Your task to perform on an android device: open app "Grab" (install if not already installed) Image 0: 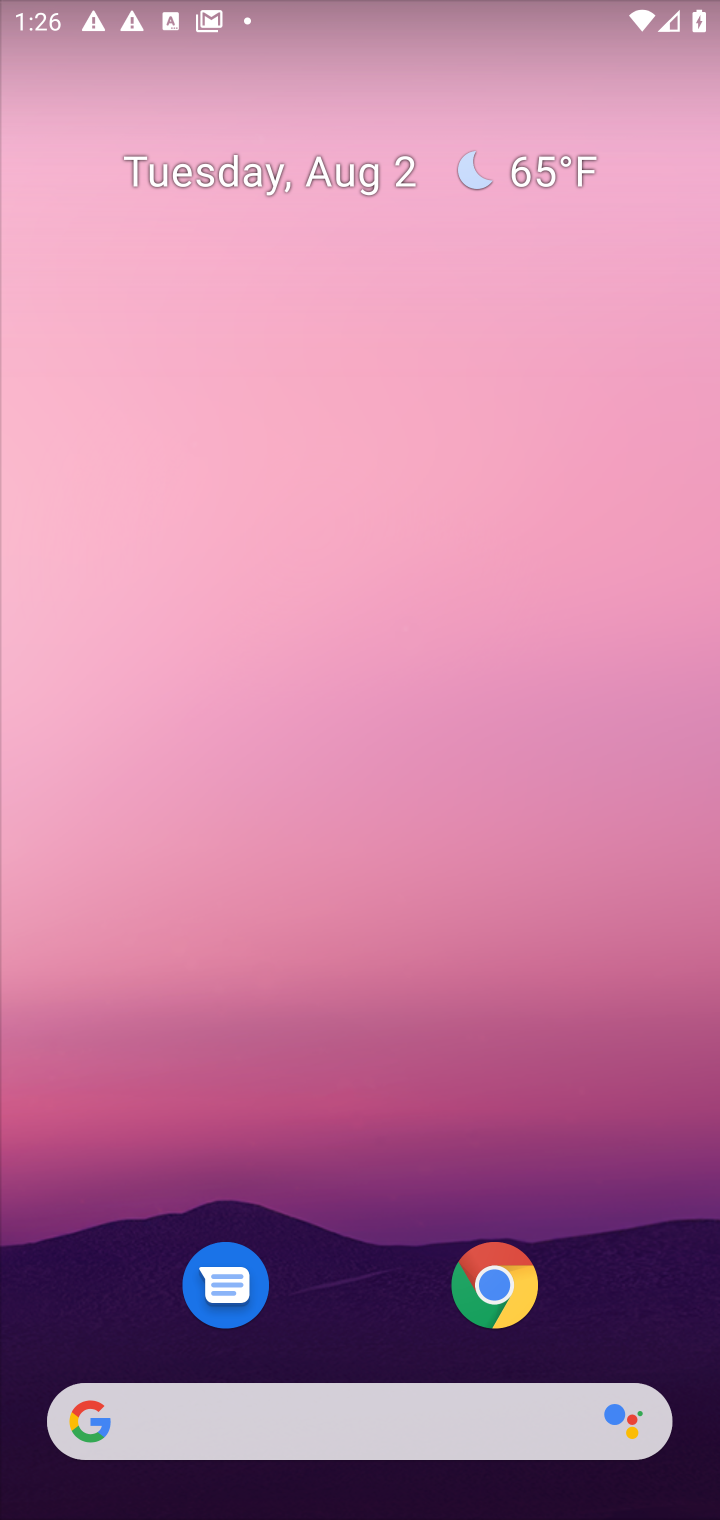
Step 0: drag from (395, 402) to (442, 41)
Your task to perform on an android device: open app "Grab" (install if not already installed) Image 1: 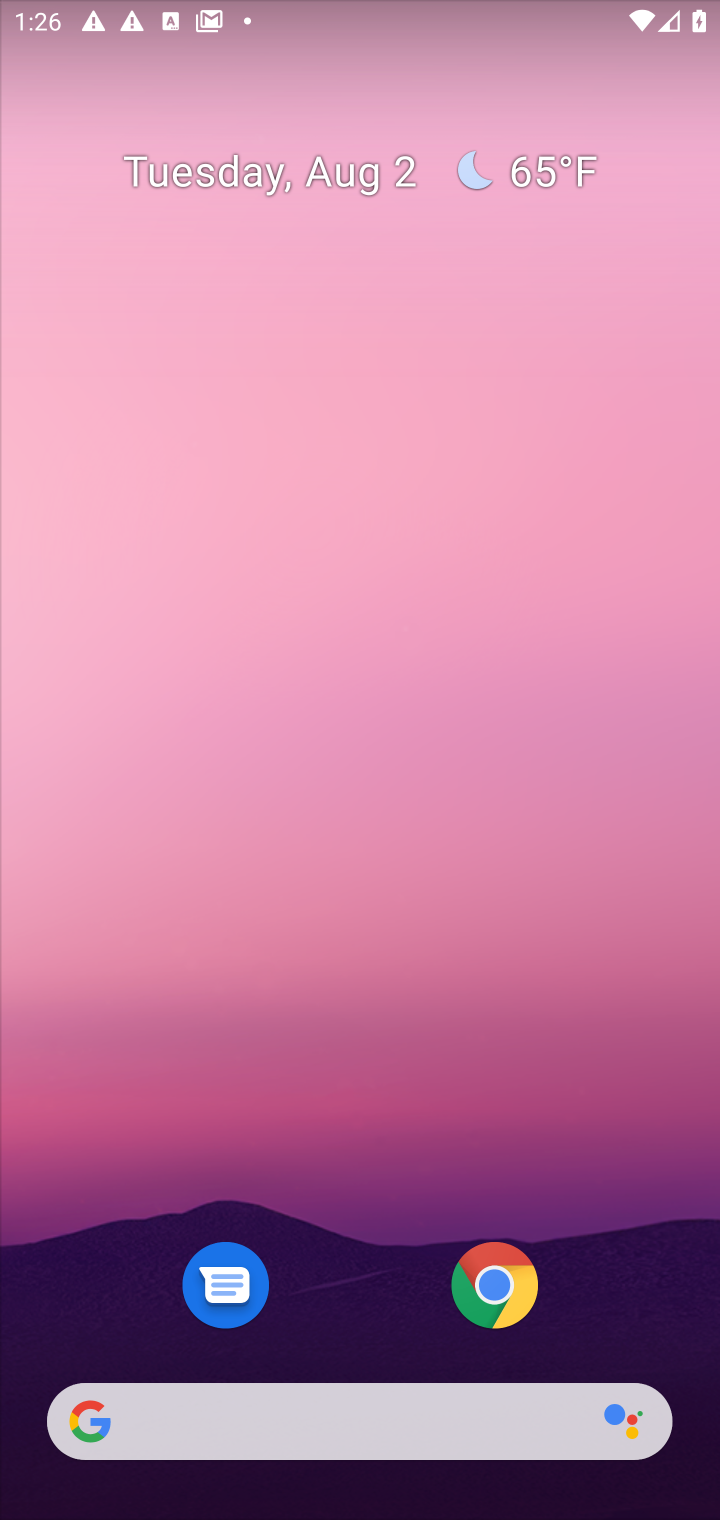
Step 1: drag from (381, 871) to (429, 169)
Your task to perform on an android device: open app "Grab" (install if not already installed) Image 2: 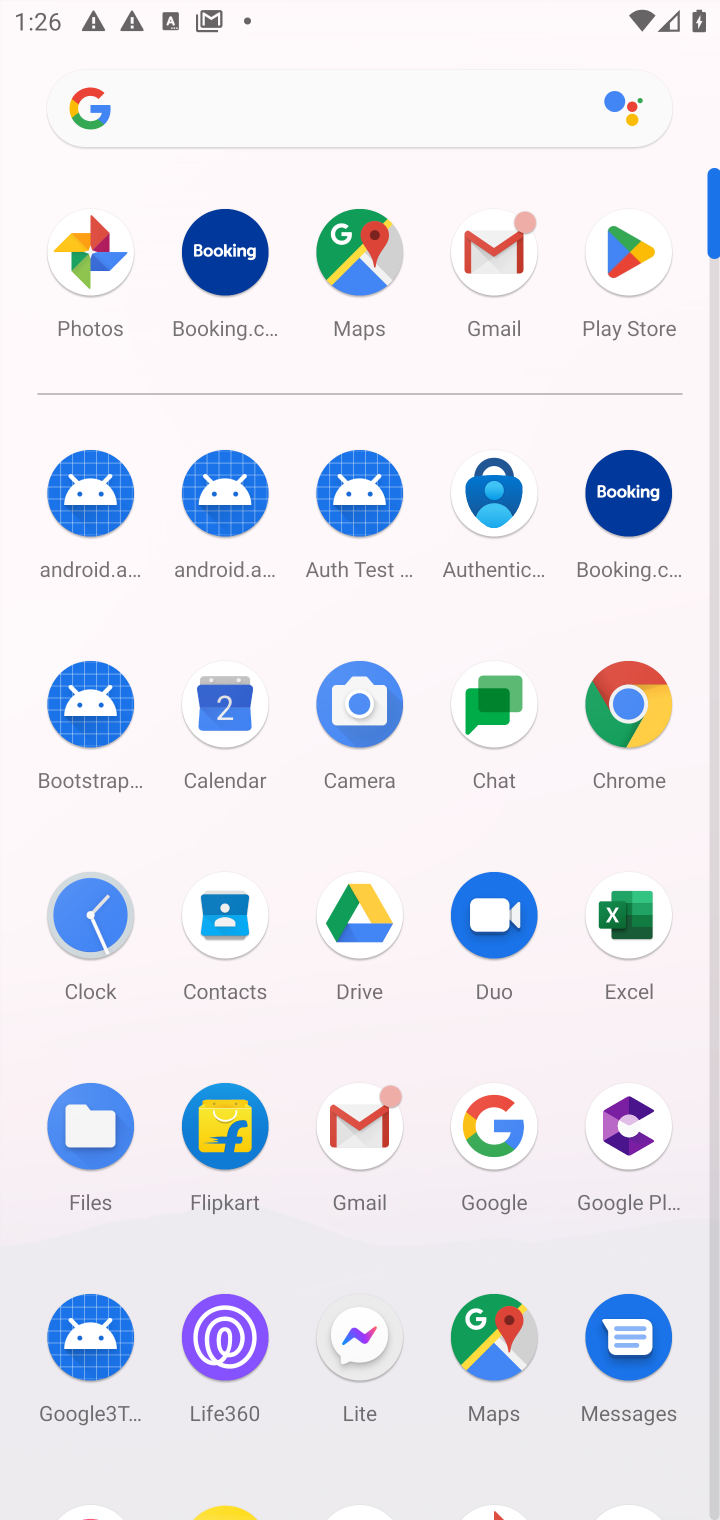
Step 2: click (635, 230)
Your task to perform on an android device: open app "Grab" (install if not already installed) Image 3: 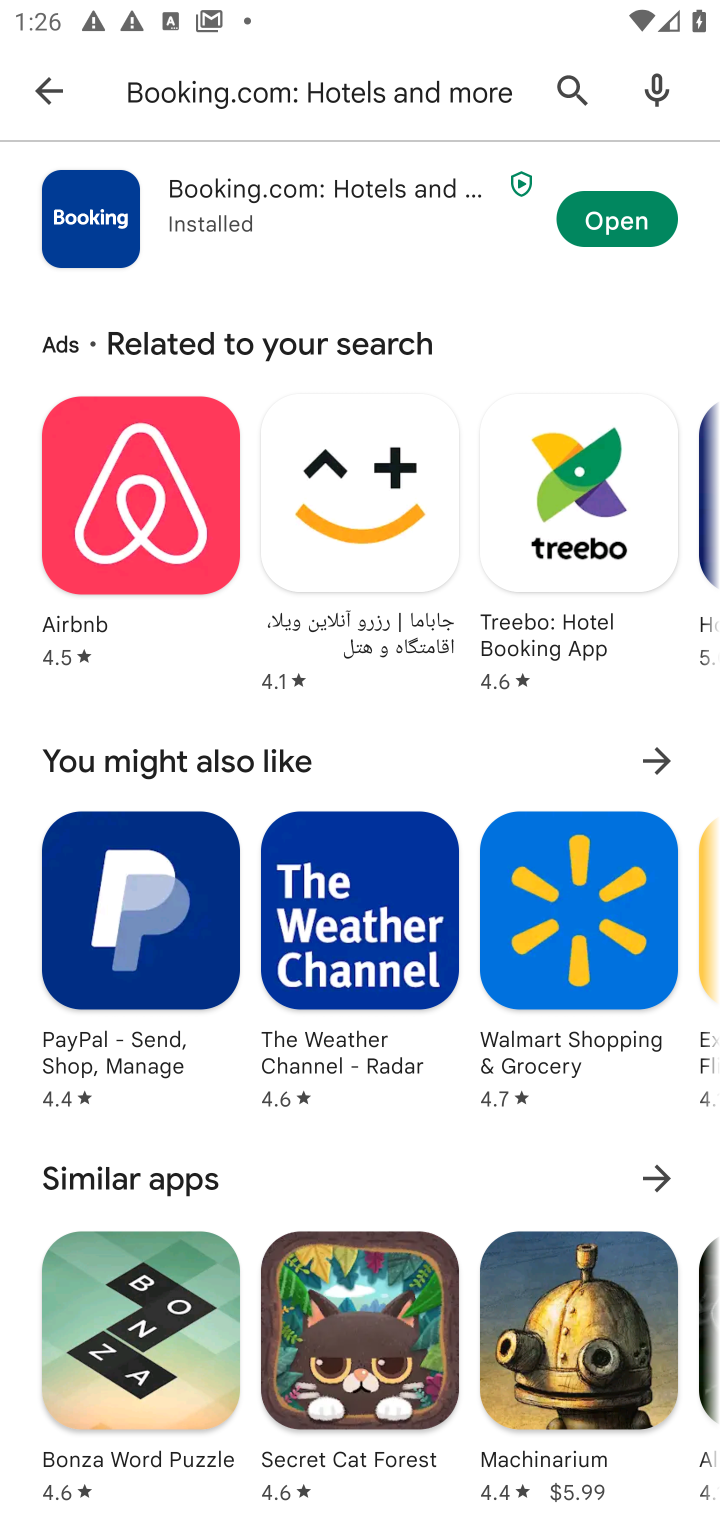
Step 3: click (375, 111)
Your task to perform on an android device: open app "Grab" (install if not already installed) Image 4: 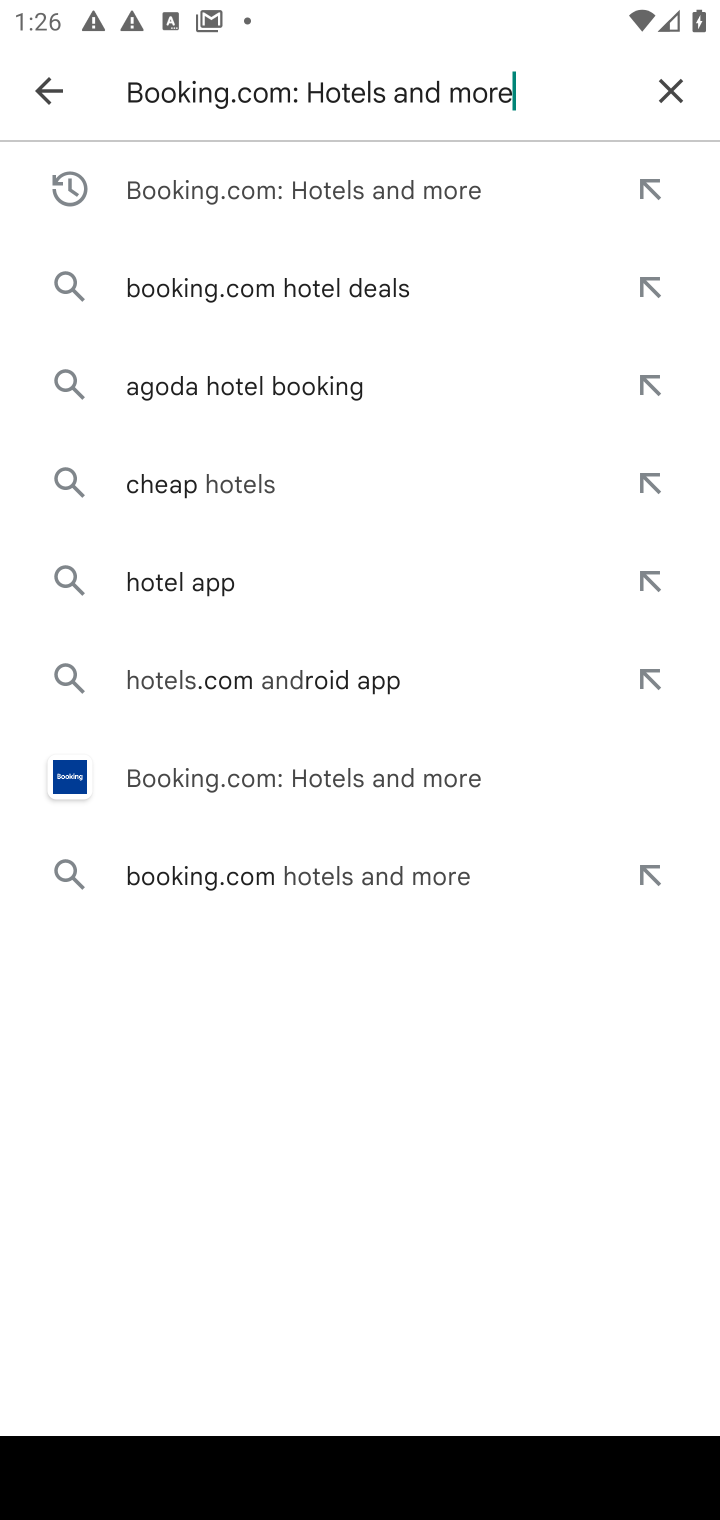
Step 4: click (666, 85)
Your task to perform on an android device: open app "Grab" (install if not already installed) Image 5: 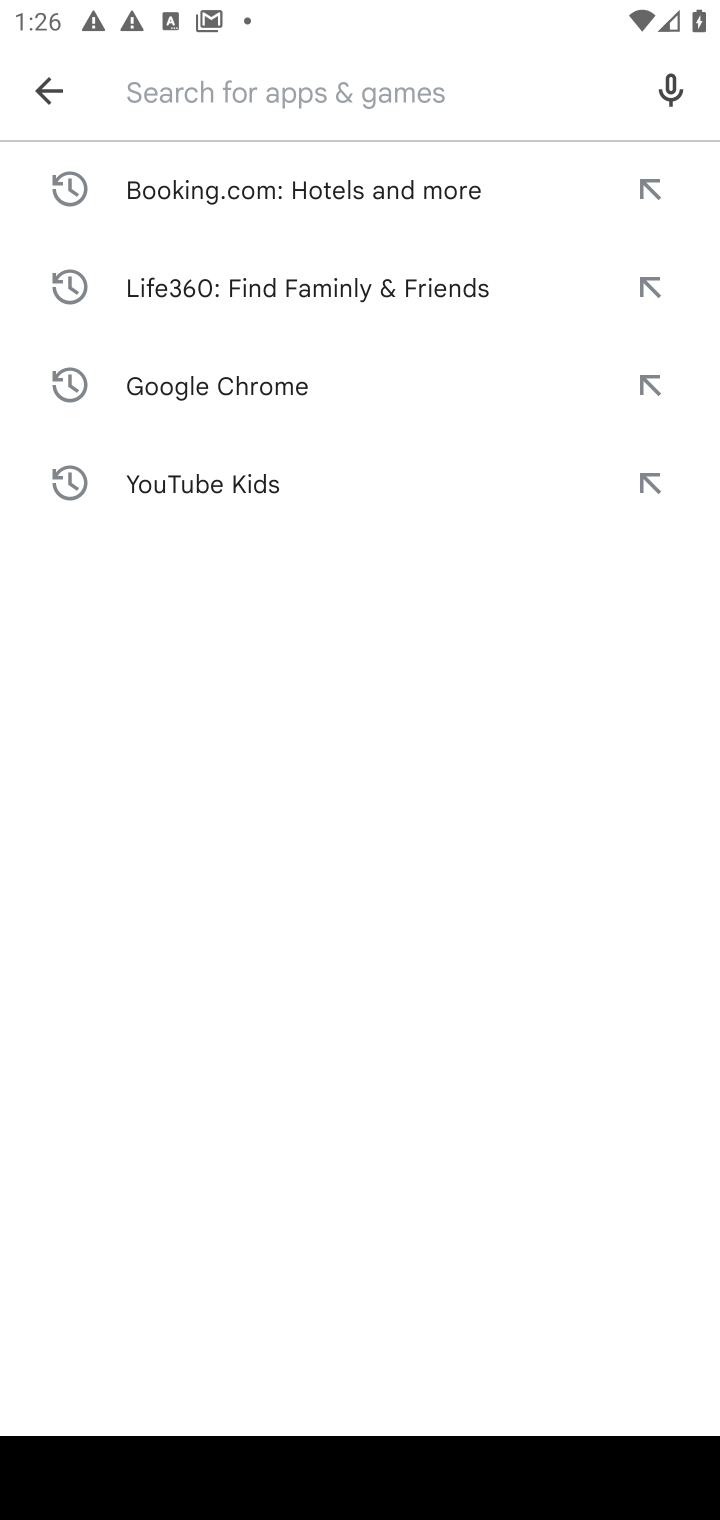
Step 5: type "Grab"
Your task to perform on an android device: open app "Grab" (install if not already installed) Image 6: 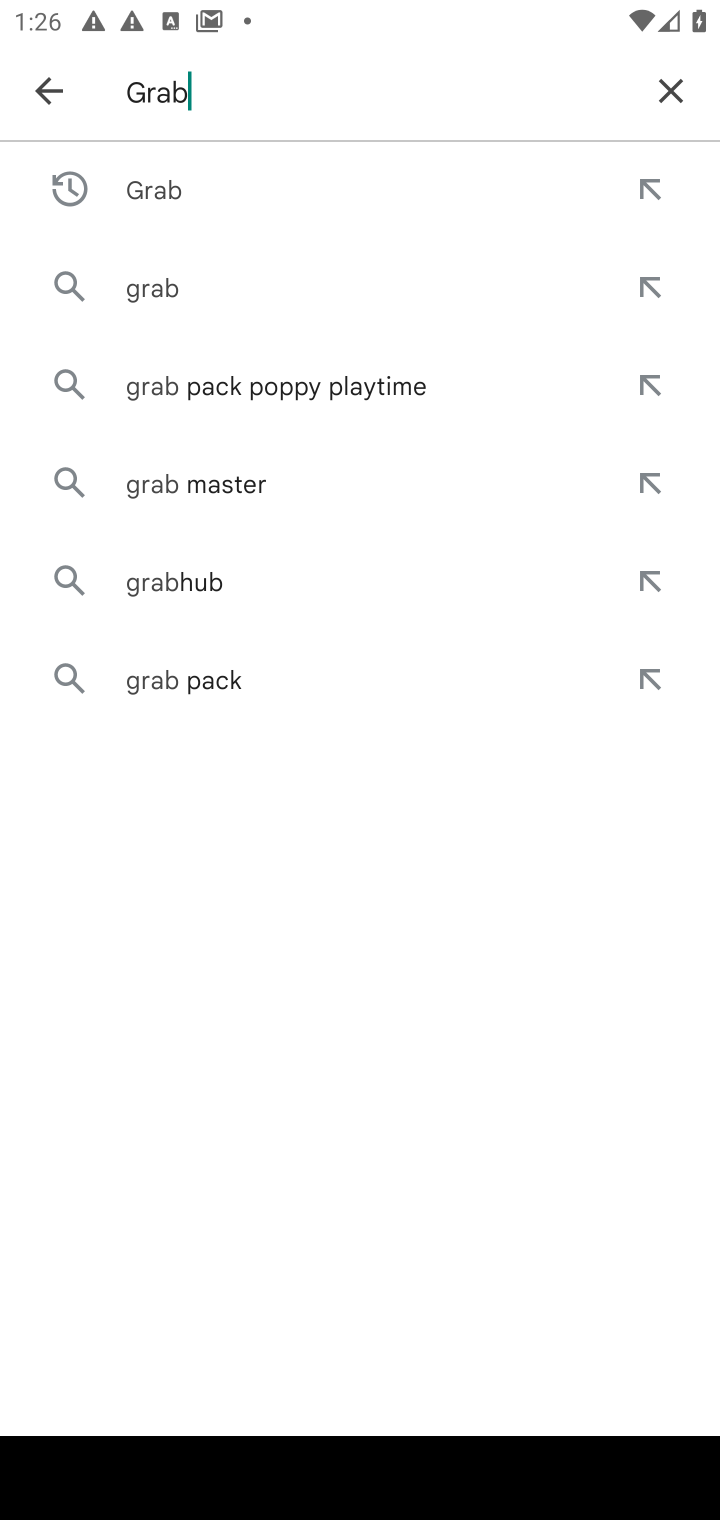
Step 6: press enter
Your task to perform on an android device: open app "Grab" (install if not already installed) Image 7: 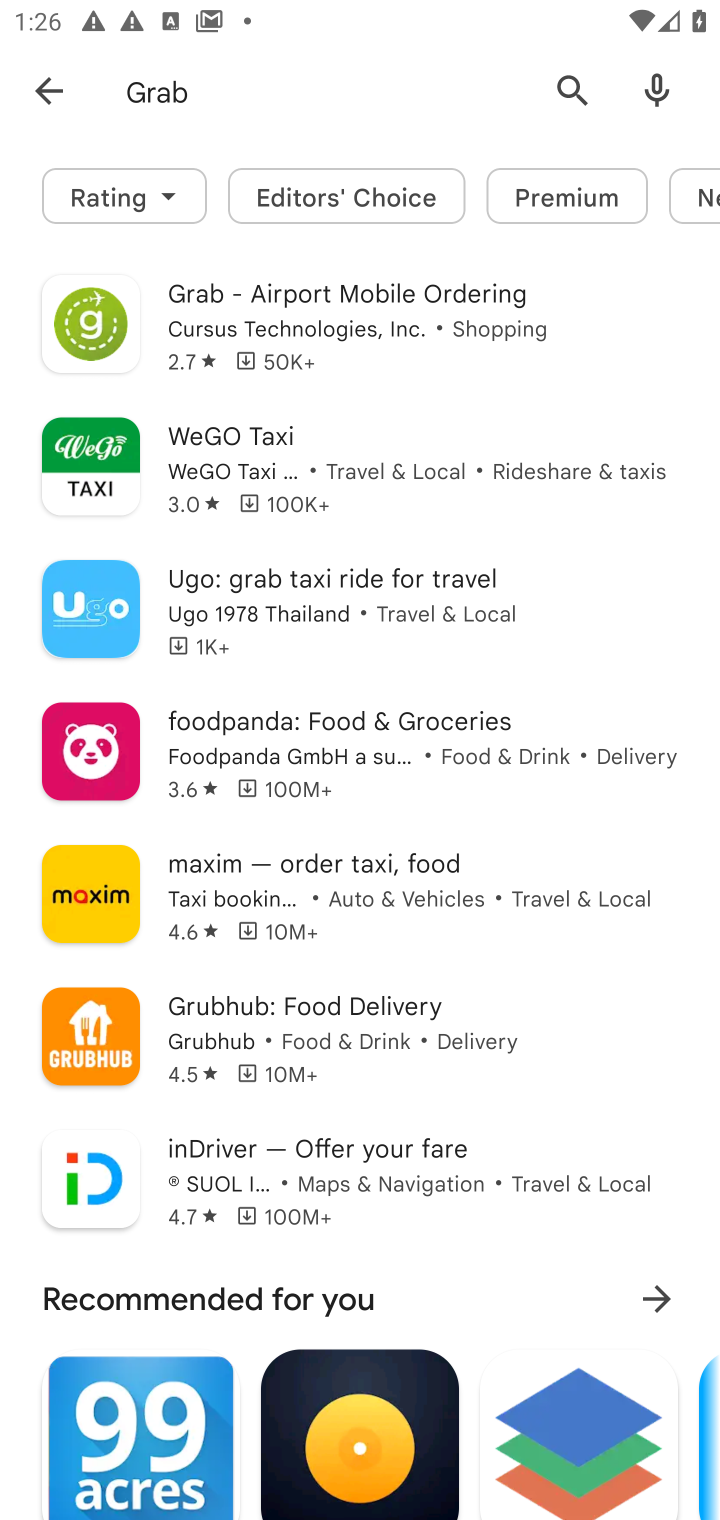
Step 7: click (288, 299)
Your task to perform on an android device: open app "Grab" (install if not already installed) Image 8: 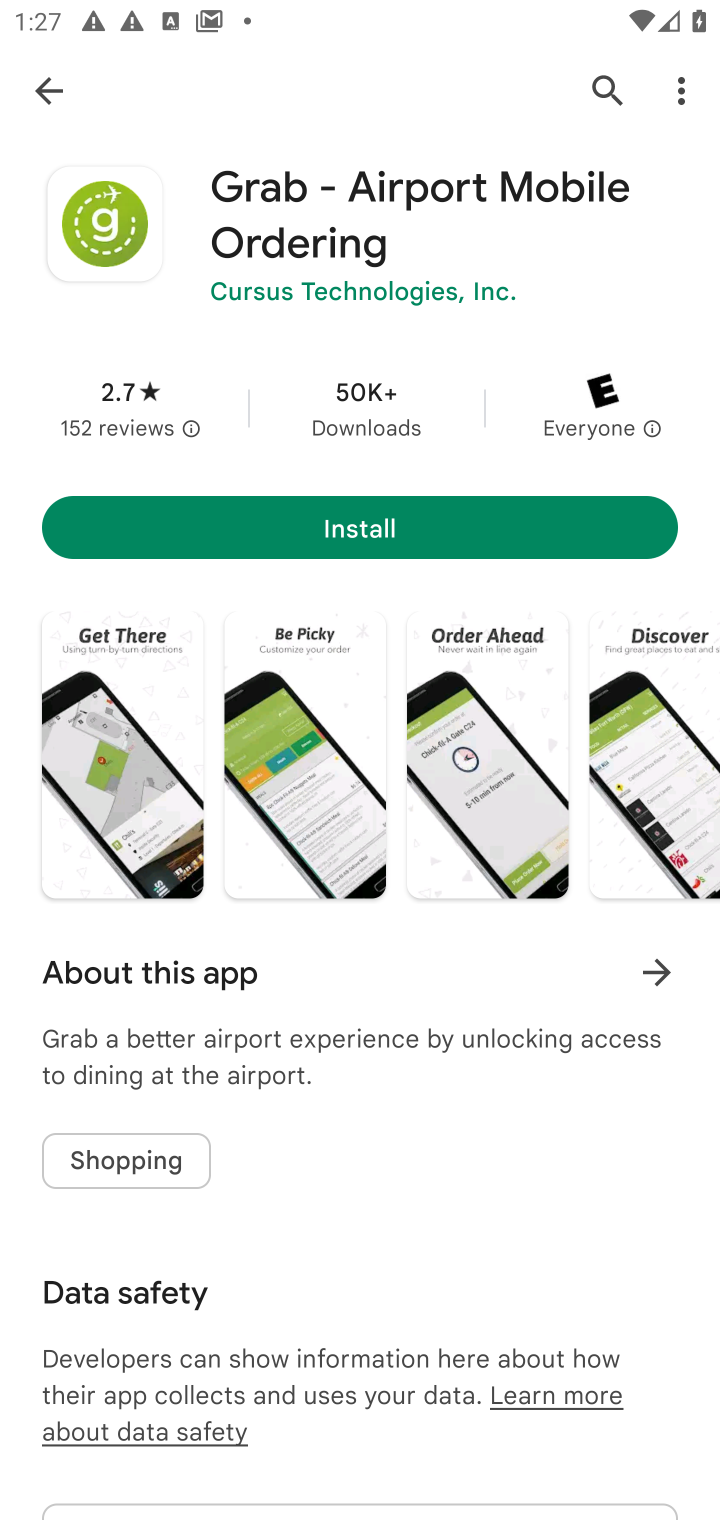
Step 8: click (276, 513)
Your task to perform on an android device: open app "Grab" (install if not already installed) Image 9: 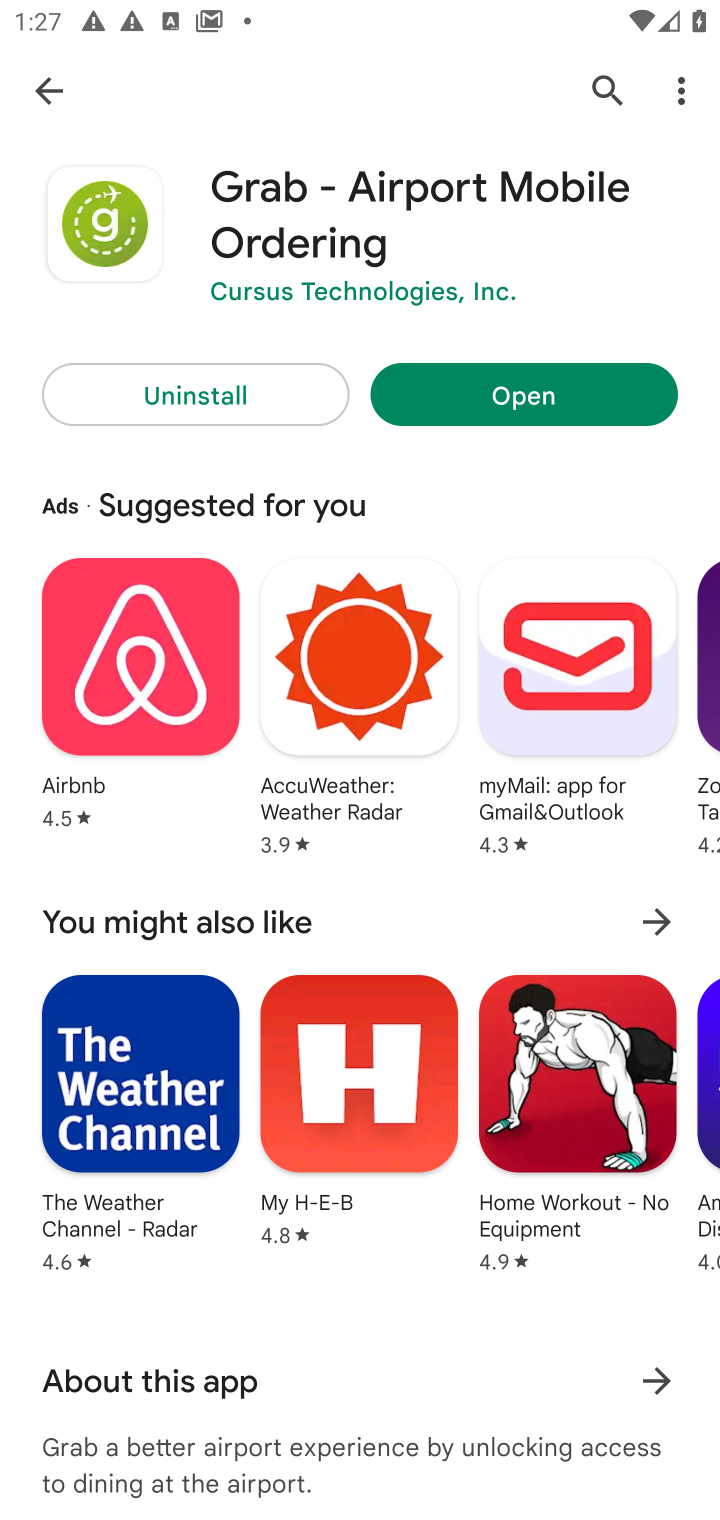
Step 9: click (550, 393)
Your task to perform on an android device: open app "Grab" (install if not already installed) Image 10: 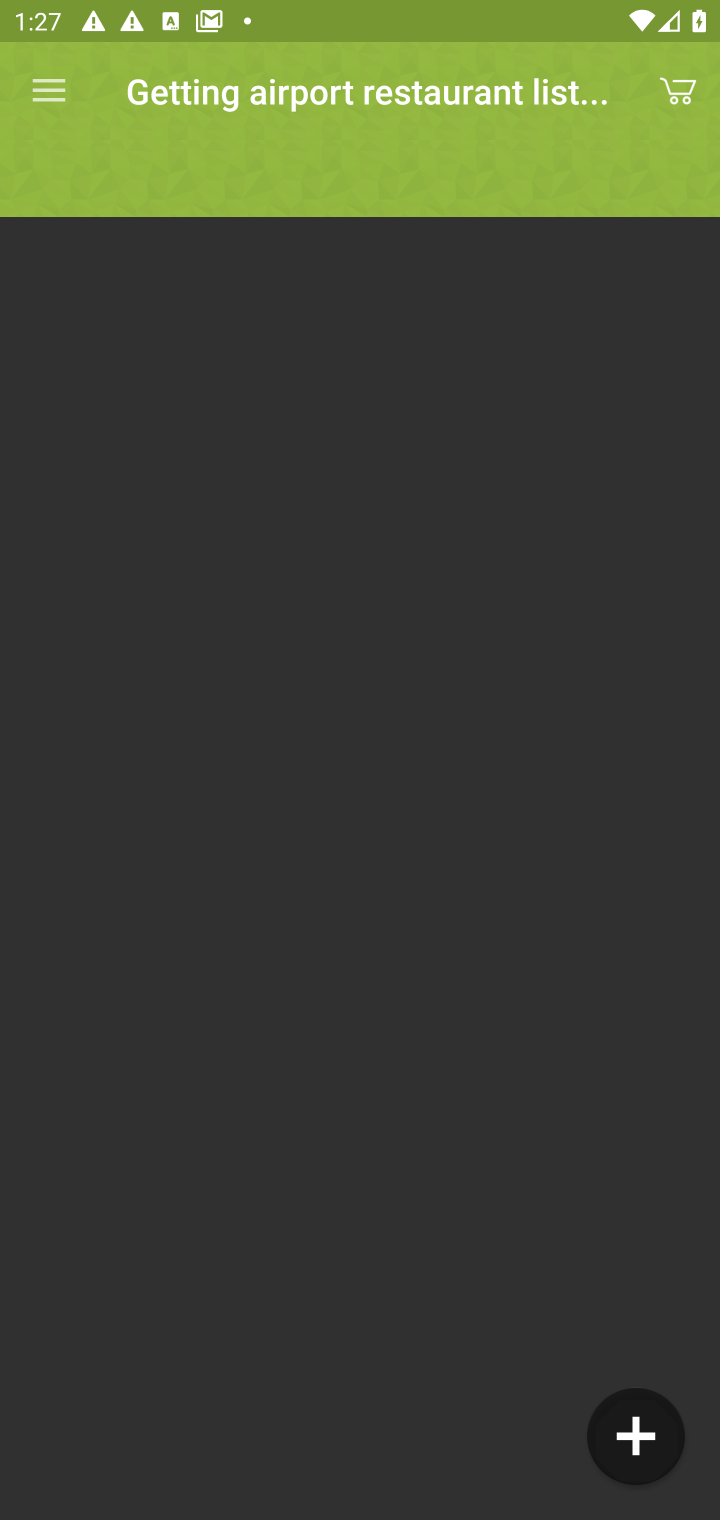
Step 10: task complete